Your task to perform on an android device: Go to privacy settings Image 0: 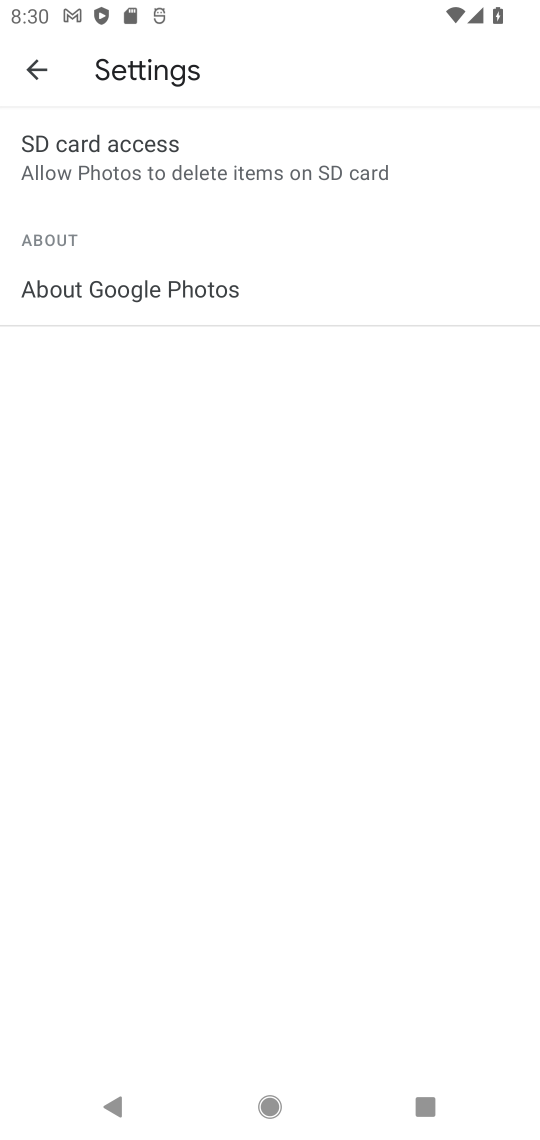
Step 0: press home button
Your task to perform on an android device: Go to privacy settings Image 1: 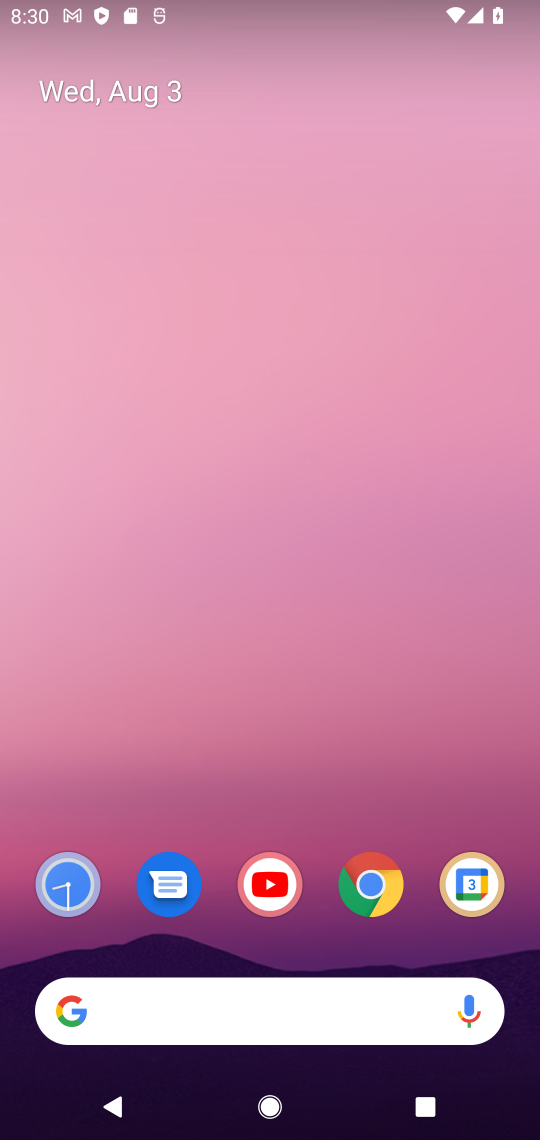
Step 1: drag from (121, 911) to (208, 486)
Your task to perform on an android device: Go to privacy settings Image 2: 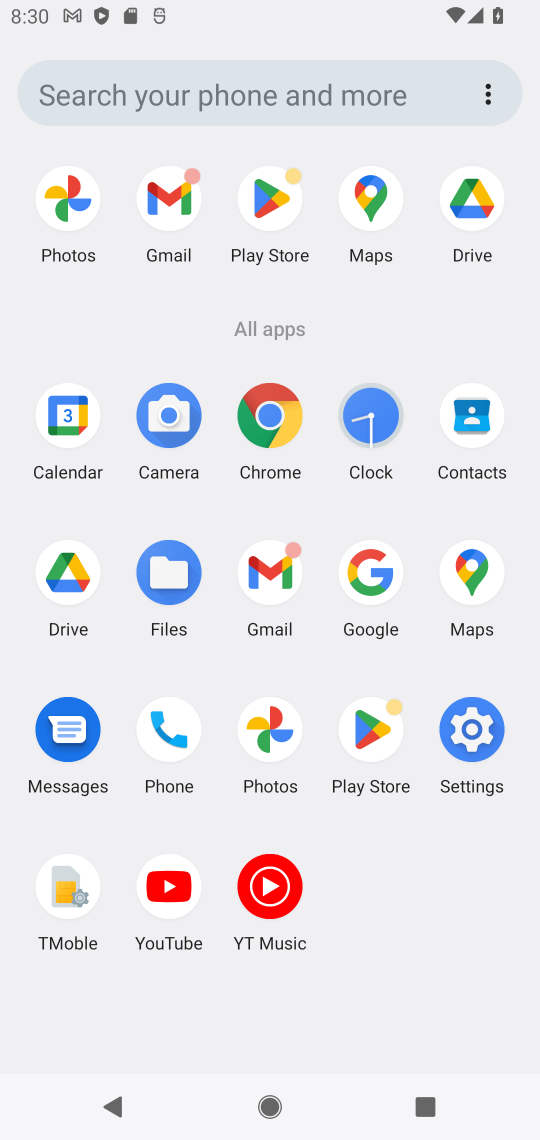
Step 2: click (481, 737)
Your task to perform on an android device: Go to privacy settings Image 3: 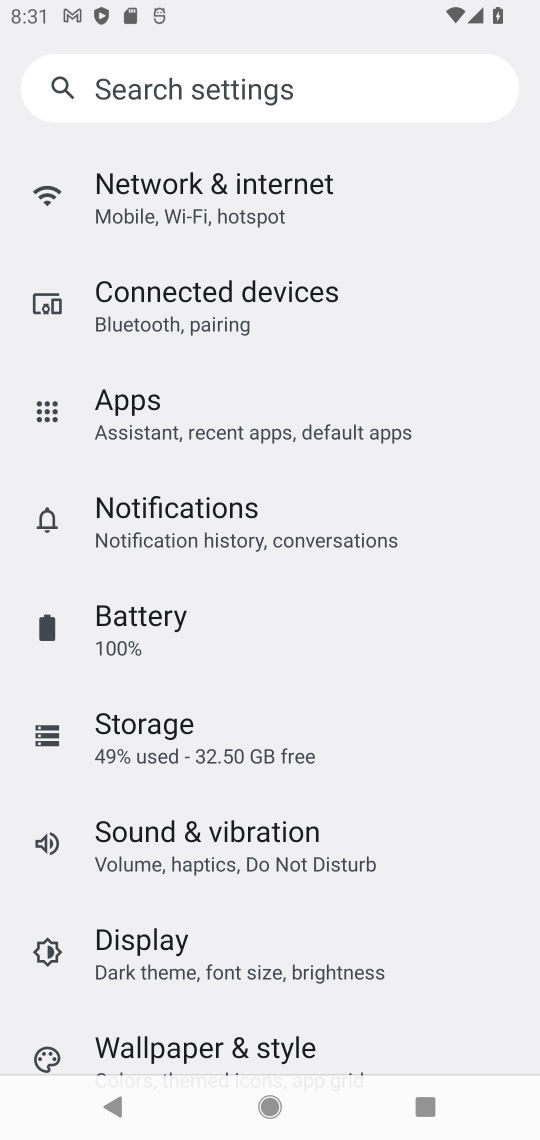
Step 3: drag from (263, 915) to (263, 317)
Your task to perform on an android device: Go to privacy settings Image 4: 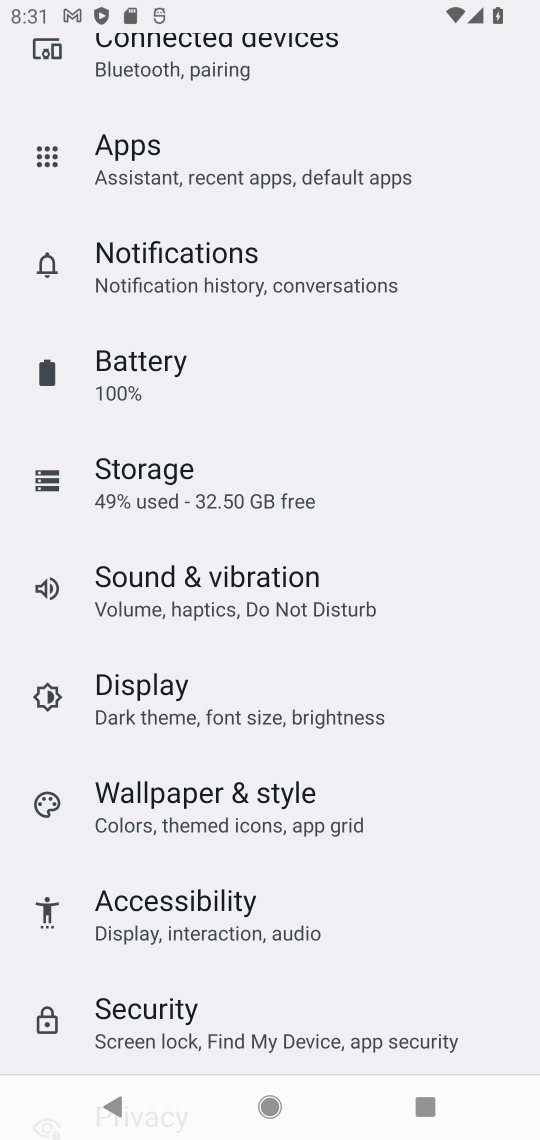
Step 4: drag from (262, 635) to (286, 191)
Your task to perform on an android device: Go to privacy settings Image 5: 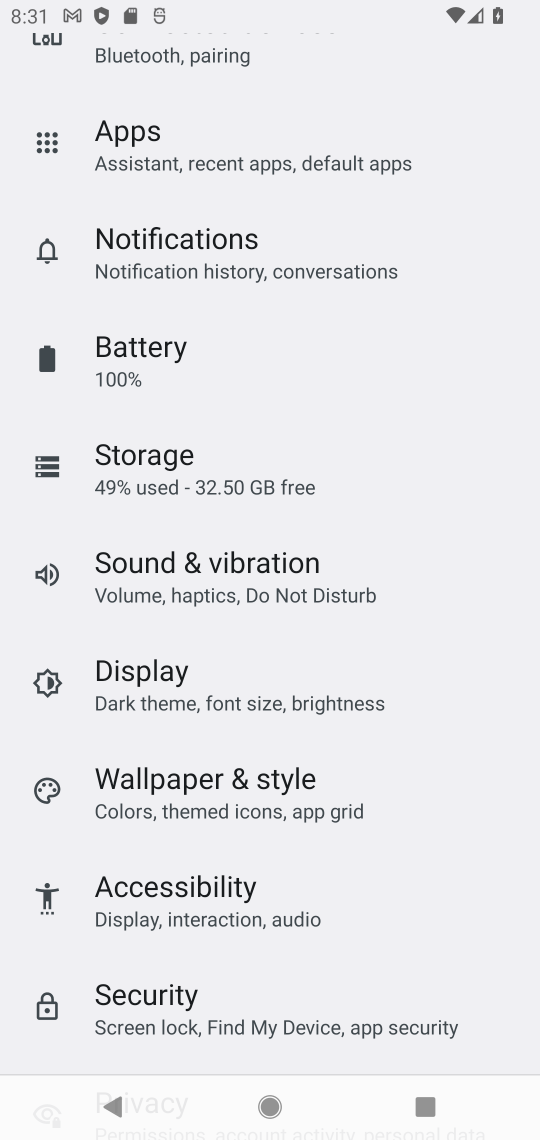
Step 5: drag from (248, 501) to (214, 1129)
Your task to perform on an android device: Go to privacy settings Image 6: 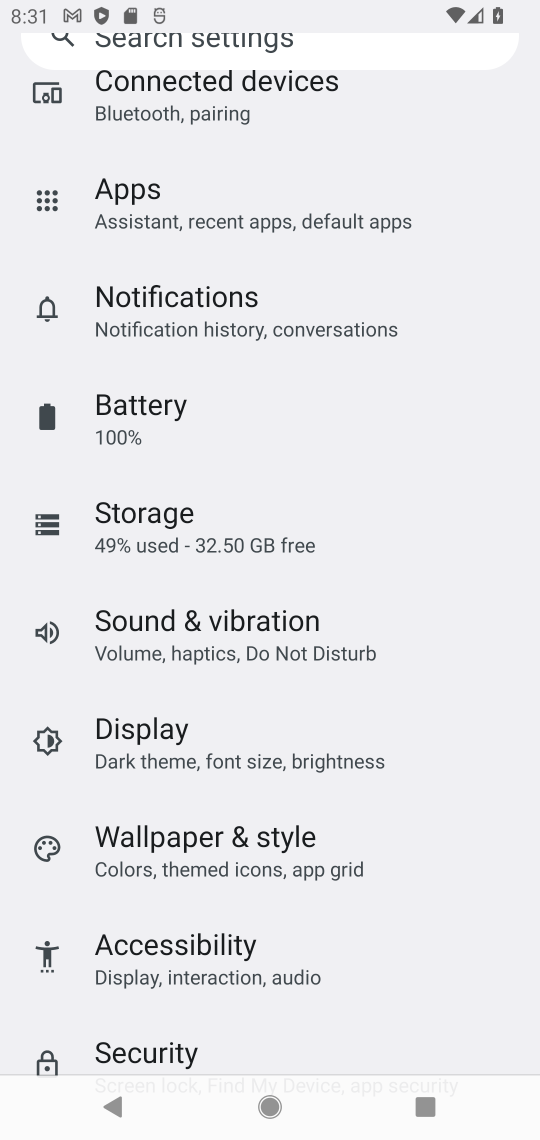
Step 6: drag from (272, 319) to (256, 888)
Your task to perform on an android device: Go to privacy settings Image 7: 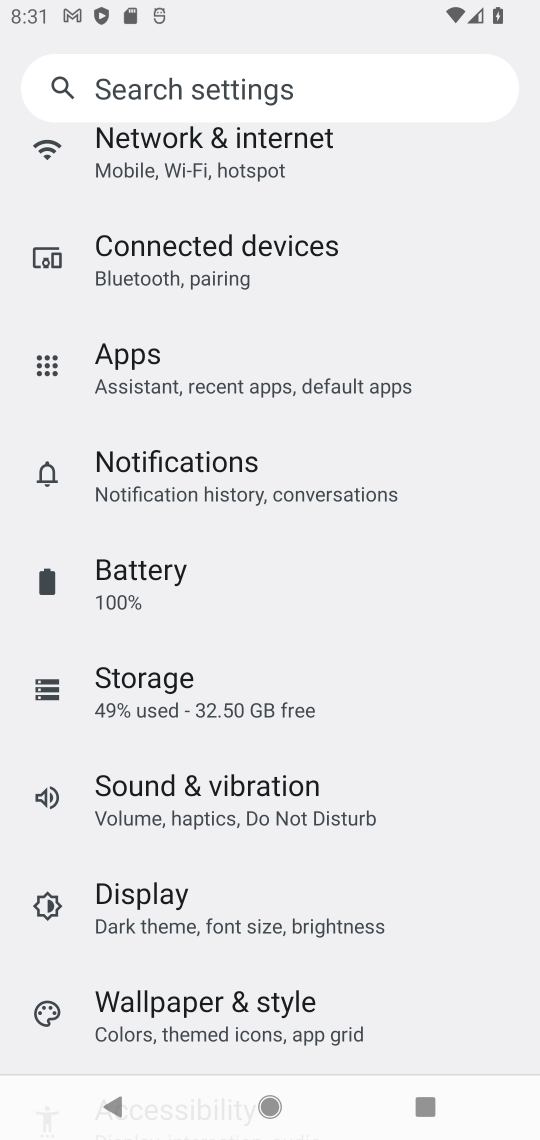
Step 7: drag from (279, 555) to (328, 290)
Your task to perform on an android device: Go to privacy settings Image 8: 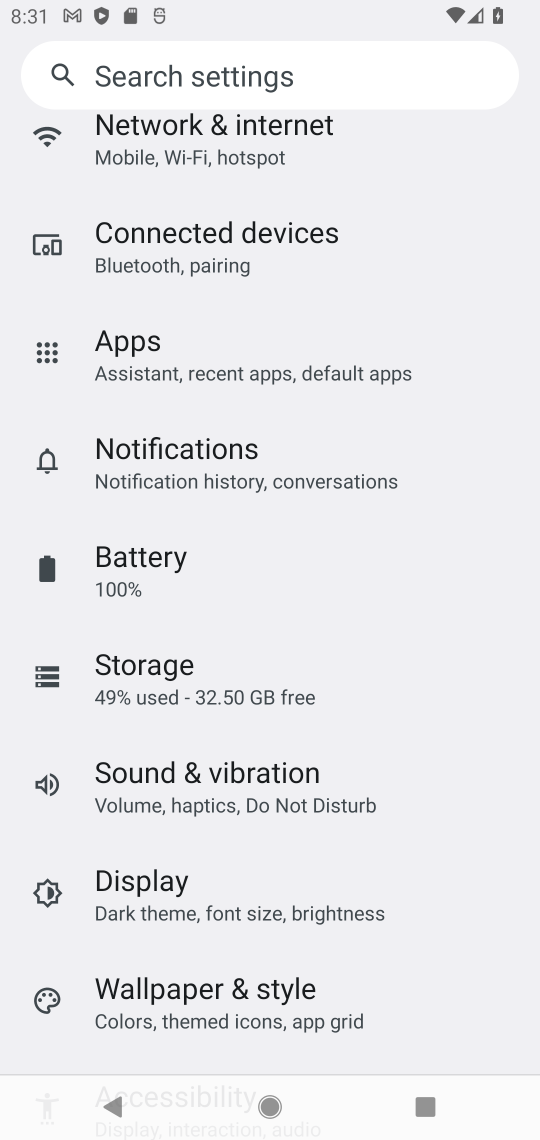
Step 8: drag from (213, 925) to (302, 422)
Your task to perform on an android device: Go to privacy settings Image 9: 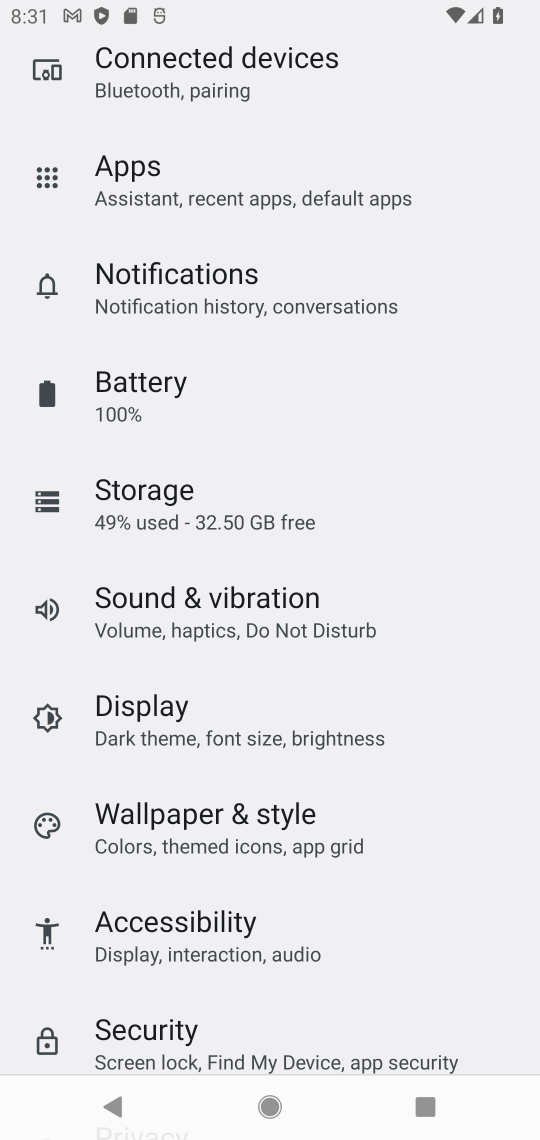
Step 9: drag from (337, 310) to (332, 935)
Your task to perform on an android device: Go to privacy settings Image 10: 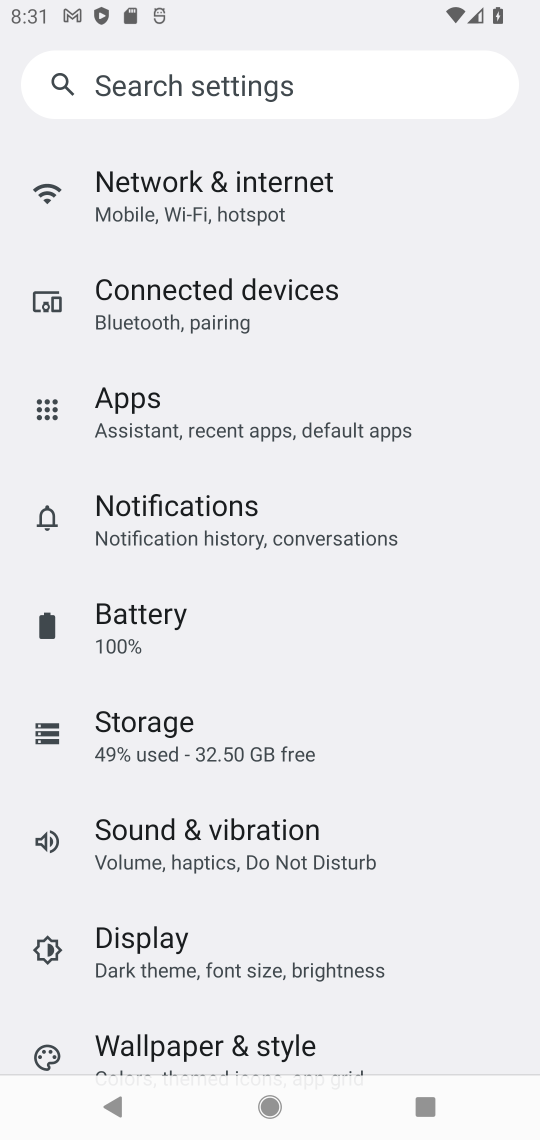
Step 10: drag from (256, 243) to (214, 776)
Your task to perform on an android device: Go to privacy settings Image 11: 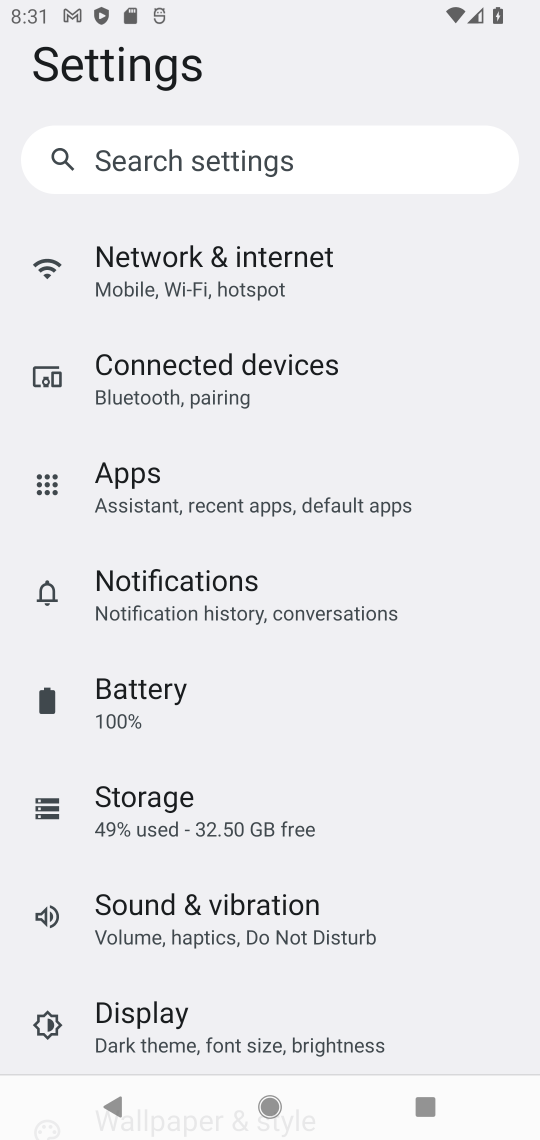
Step 11: drag from (262, 595) to (304, 251)
Your task to perform on an android device: Go to privacy settings Image 12: 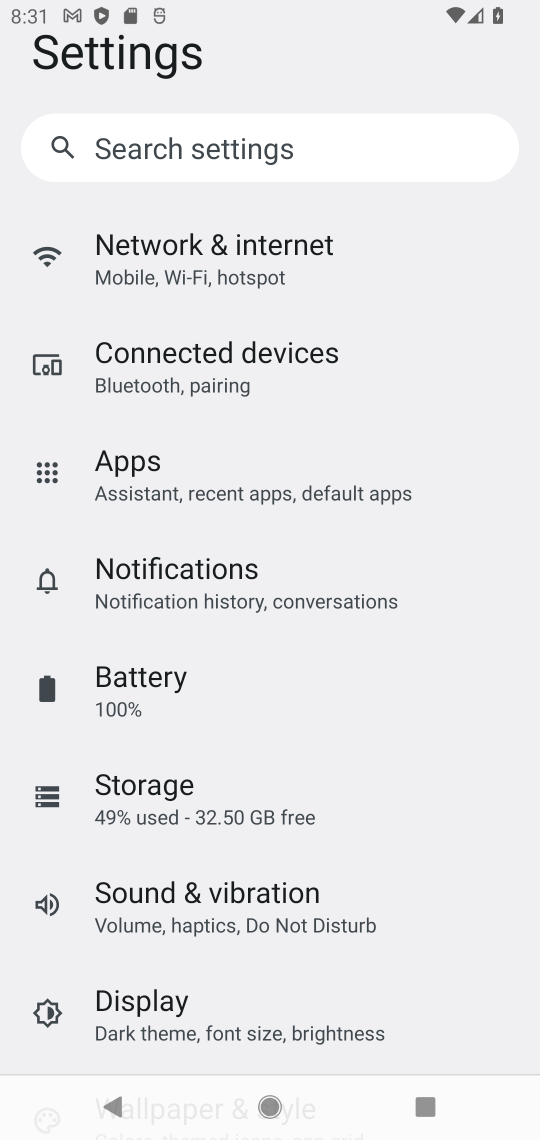
Step 12: drag from (229, 852) to (295, 220)
Your task to perform on an android device: Go to privacy settings Image 13: 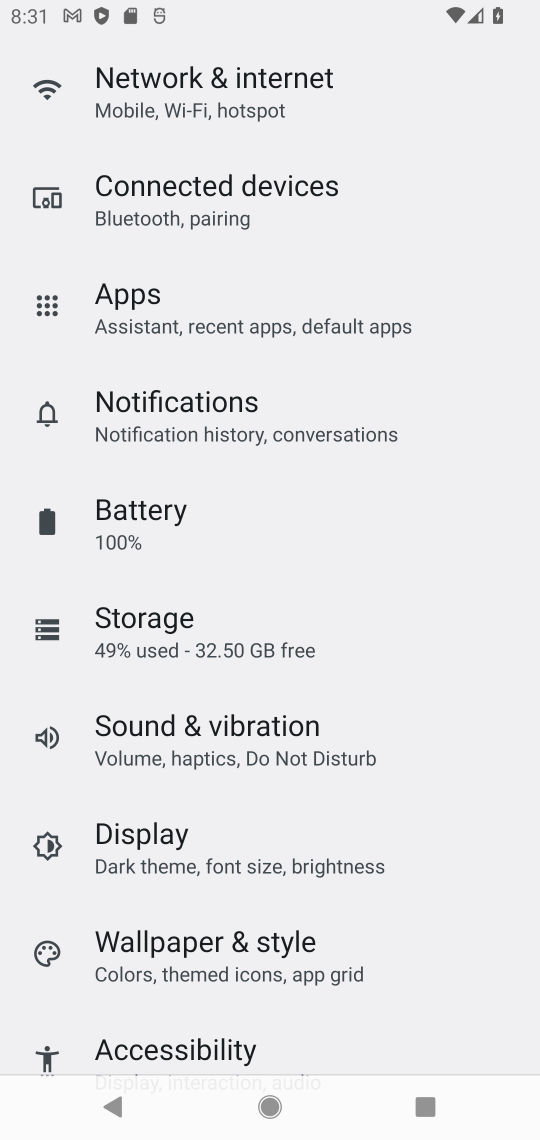
Step 13: drag from (312, 818) to (330, 386)
Your task to perform on an android device: Go to privacy settings Image 14: 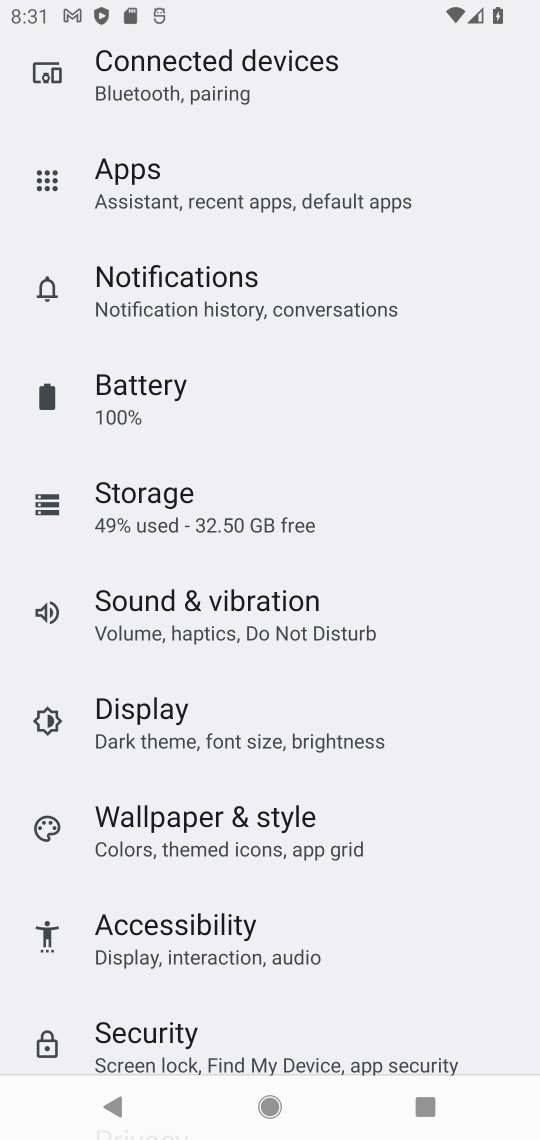
Step 14: drag from (248, 1030) to (277, 532)
Your task to perform on an android device: Go to privacy settings Image 15: 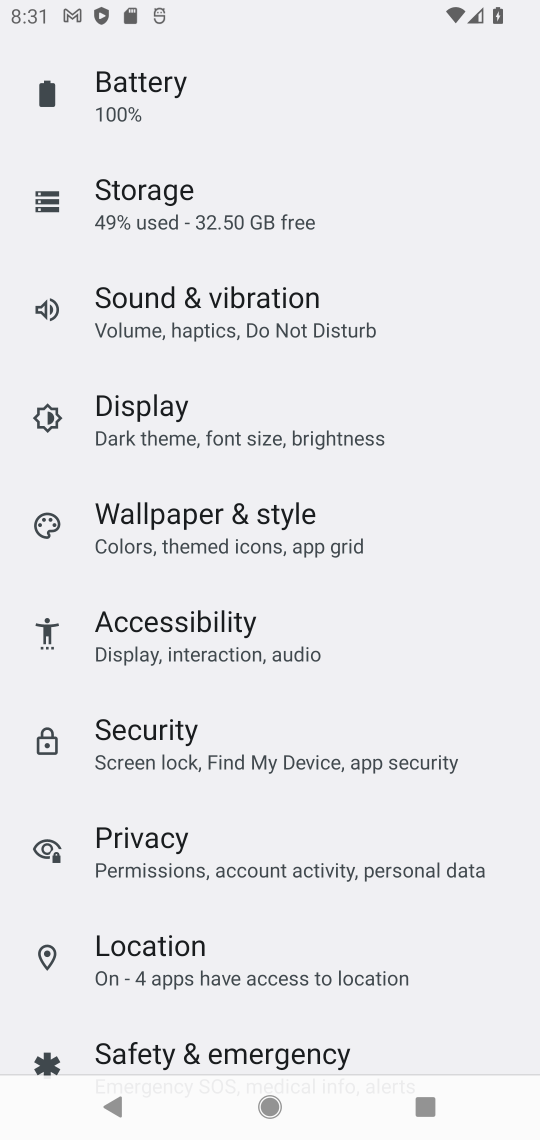
Step 15: click (194, 834)
Your task to perform on an android device: Go to privacy settings Image 16: 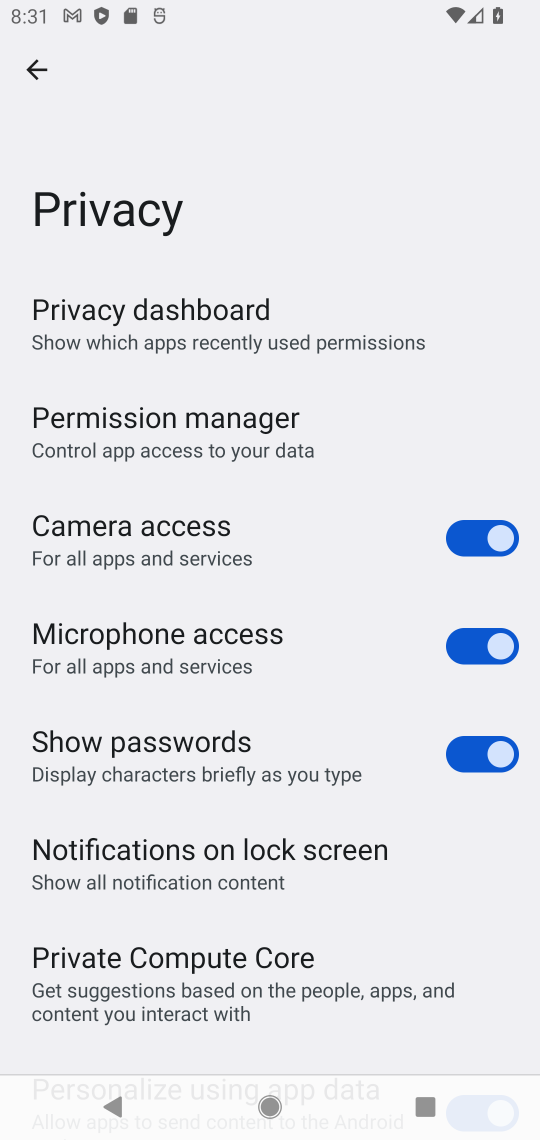
Step 16: task complete